Your task to perform on an android device: find which apps use the phone's location Image 0: 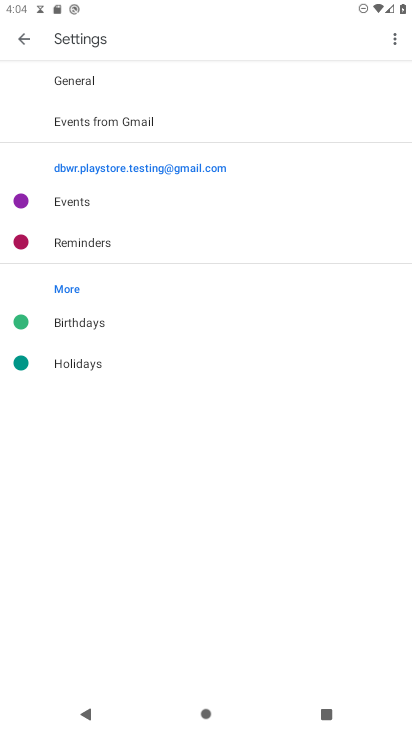
Step 0: press home button
Your task to perform on an android device: find which apps use the phone's location Image 1: 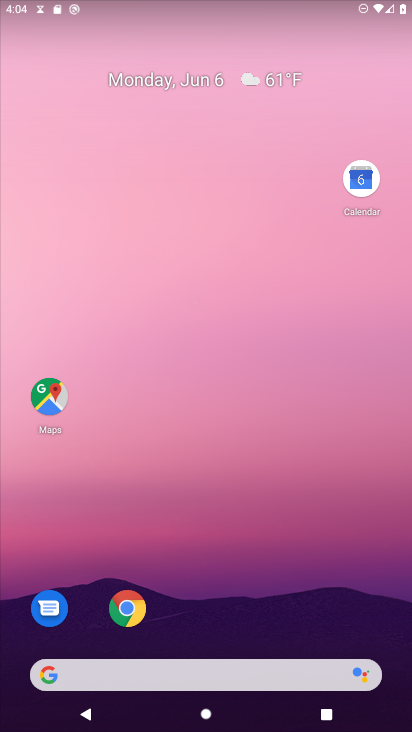
Step 1: drag from (255, 615) to (306, 18)
Your task to perform on an android device: find which apps use the phone's location Image 2: 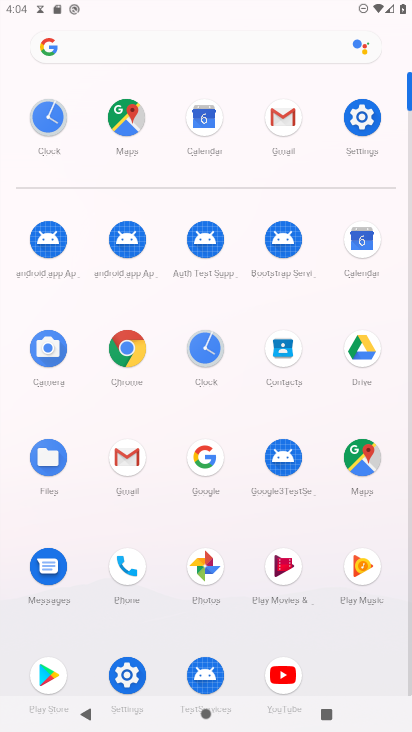
Step 2: click (363, 122)
Your task to perform on an android device: find which apps use the phone's location Image 3: 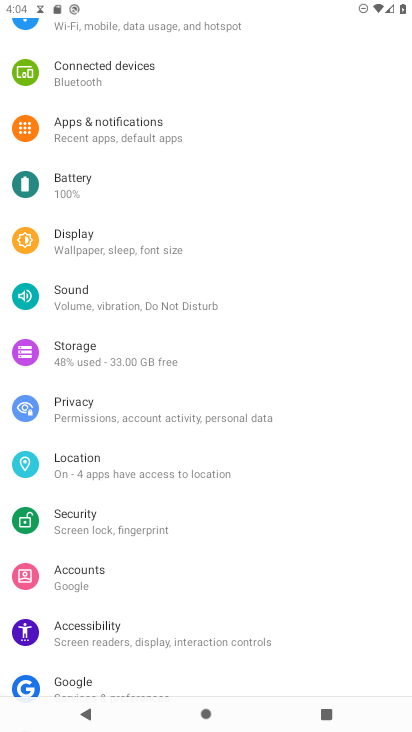
Step 3: click (90, 472)
Your task to perform on an android device: find which apps use the phone's location Image 4: 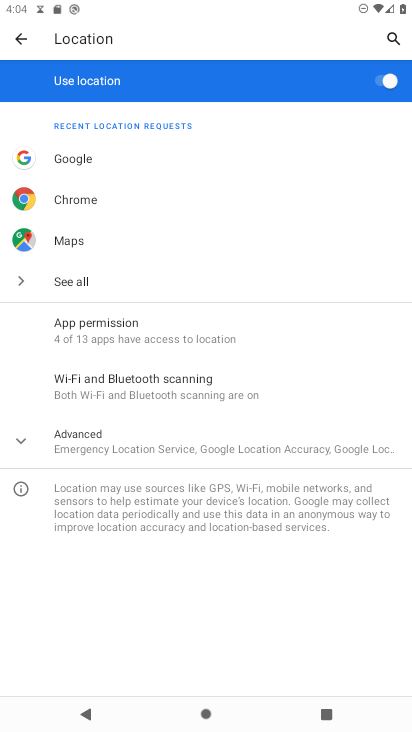
Step 4: click (97, 332)
Your task to perform on an android device: find which apps use the phone's location Image 5: 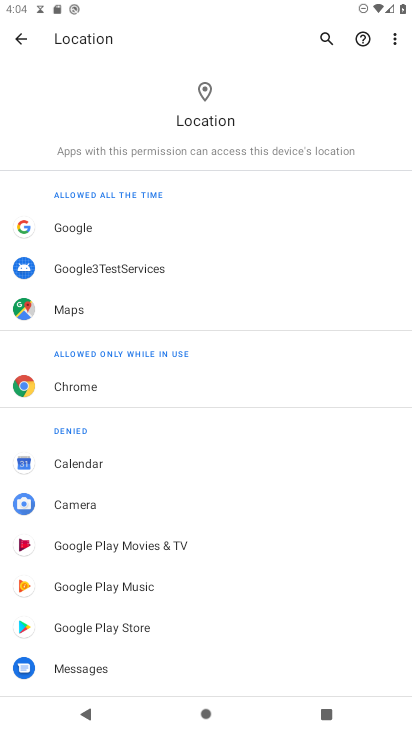
Step 5: task complete